Your task to perform on an android device: Go to wifi settings Image 0: 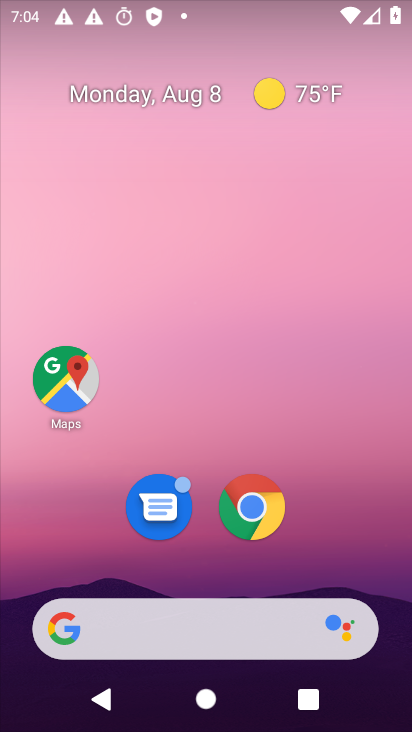
Step 0: drag from (282, 654) to (213, 146)
Your task to perform on an android device: Go to wifi settings Image 1: 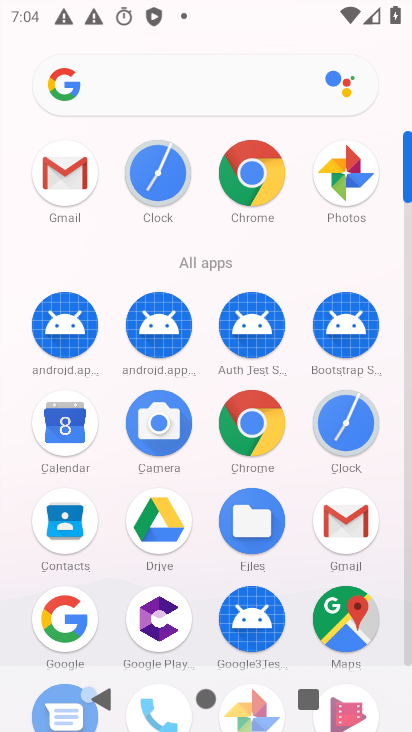
Step 1: drag from (201, 568) to (153, 392)
Your task to perform on an android device: Go to wifi settings Image 2: 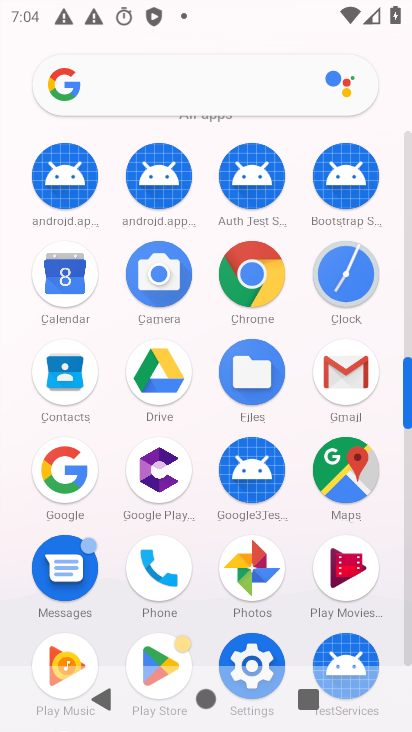
Step 2: drag from (250, 660) to (322, 525)
Your task to perform on an android device: Go to wifi settings Image 3: 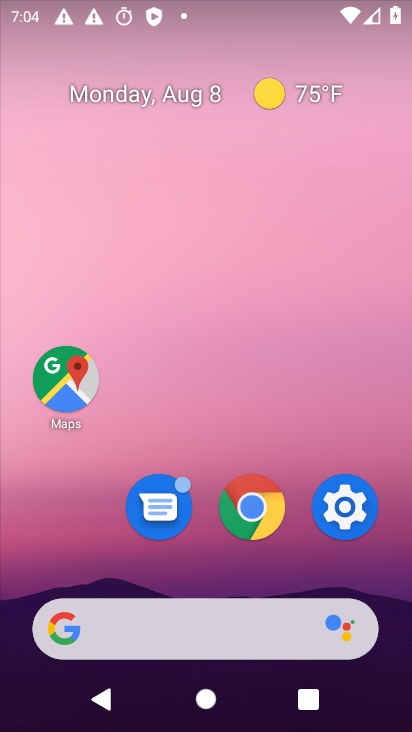
Step 3: click (362, 514)
Your task to perform on an android device: Go to wifi settings Image 4: 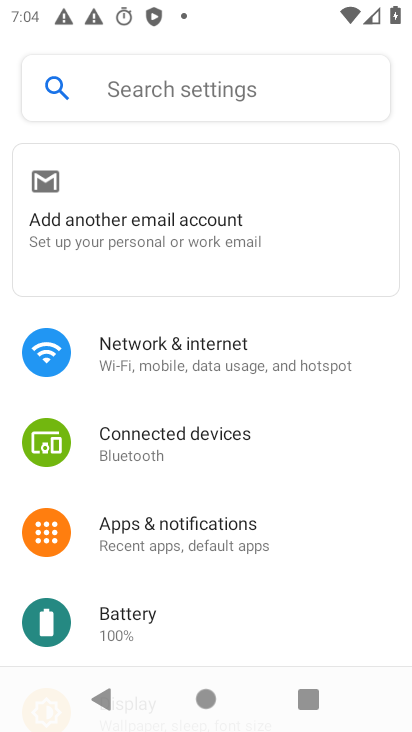
Step 4: click (173, 352)
Your task to perform on an android device: Go to wifi settings Image 5: 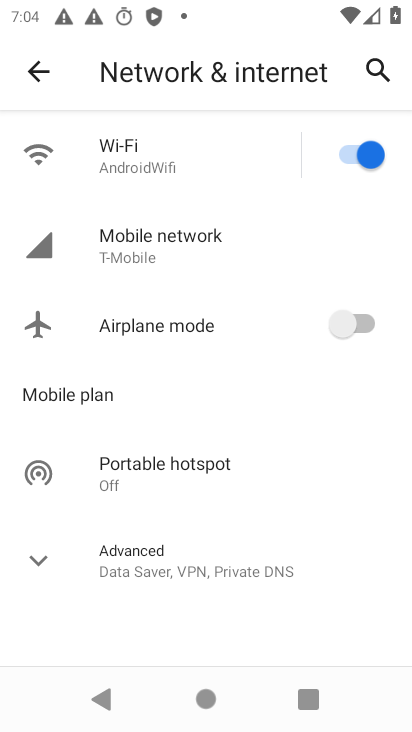
Step 5: click (201, 155)
Your task to perform on an android device: Go to wifi settings Image 6: 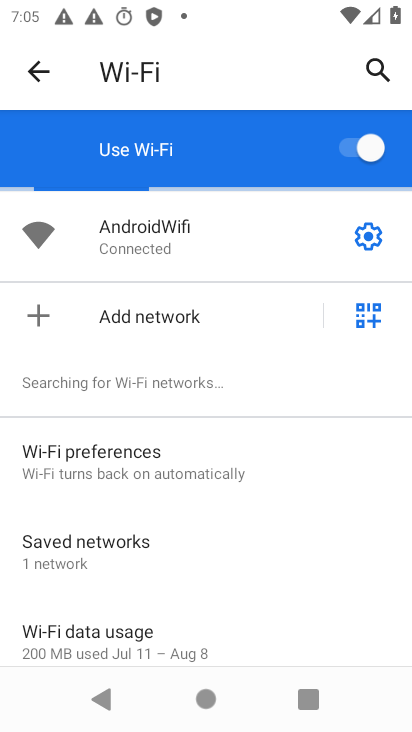
Step 6: task complete